Your task to perform on an android device: When is my next meeting? Image 0: 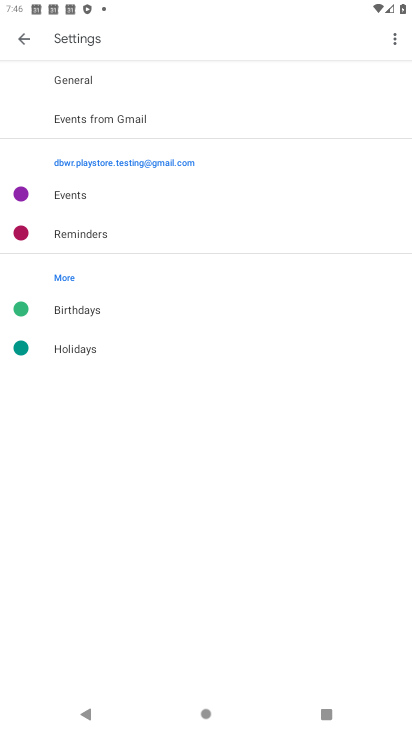
Step 0: press home button
Your task to perform on an android device: When is my next meeting? Image 1: 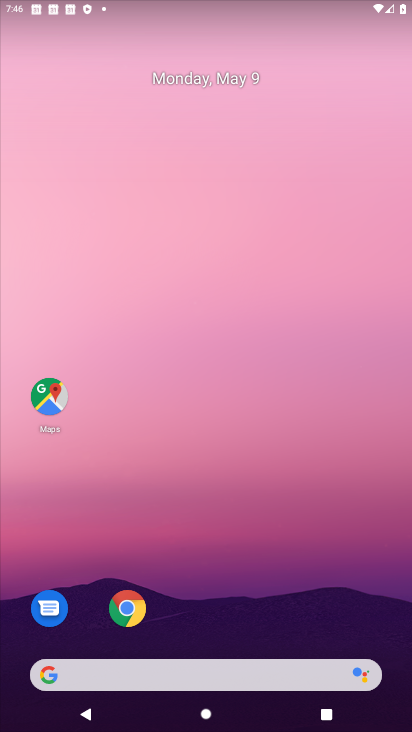
Step 1: drag from (272, 491) to (248, 7)
Your task to perform on an android device: When is my next meeting? Image 2: 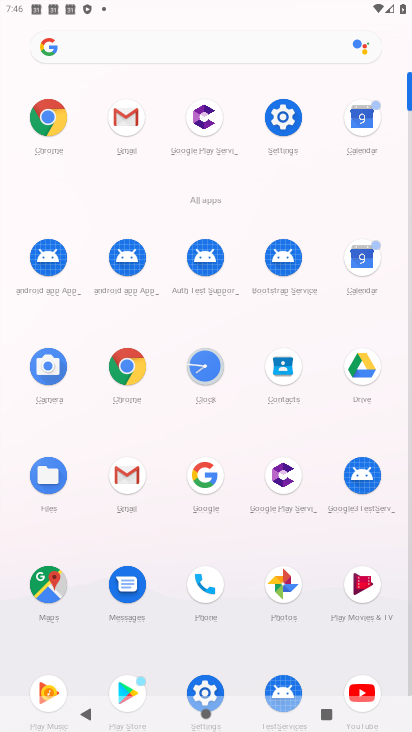
Step 2: click (366, 262)
Your task to perform on an android device: When is my next meeting? Image 3: 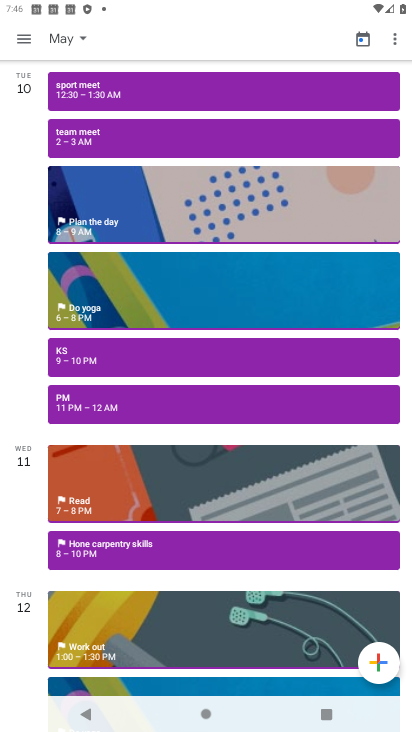
Step 3: task complete